Your task to perform on an android device: toggle airplane mode Image 0: 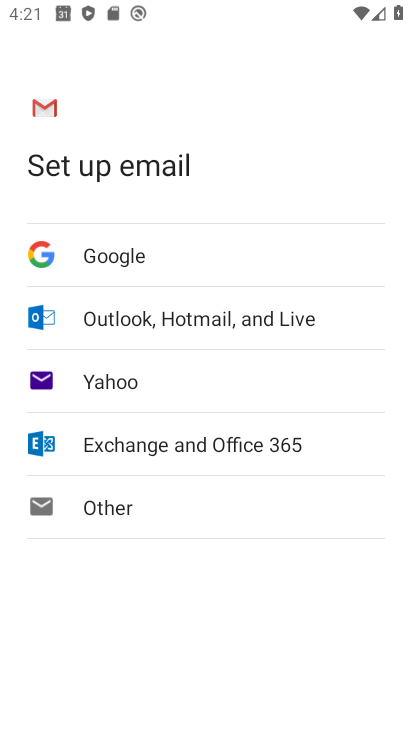
Step 0: press home button
Your task to perform on an android device: toggle airplane mode Image 1: 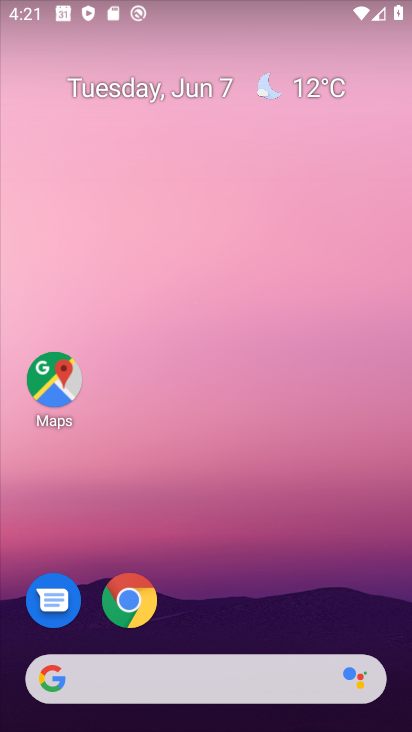
Step 1: drag from (195, 642) to (199, 307)
Your task to perform on an android device: toggle airplane mode Image 2: 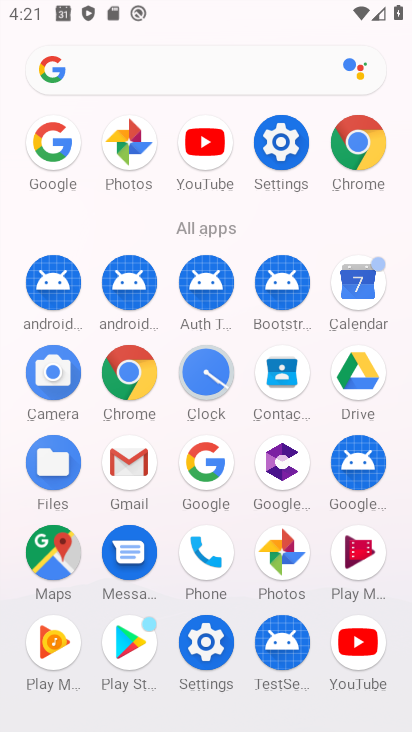
Step 2: click (287, 169)
Your task to perform on an android device: toggle airplane mode Image 3: 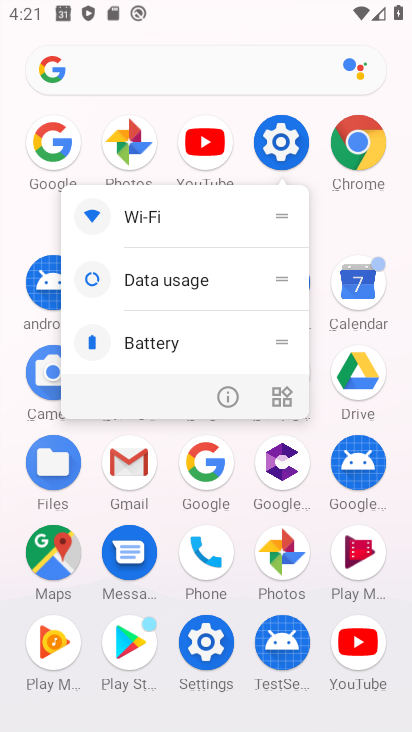
Step 3: click (272, 138)
Your task to perform on an android device: toggle airplane mode Image 4: 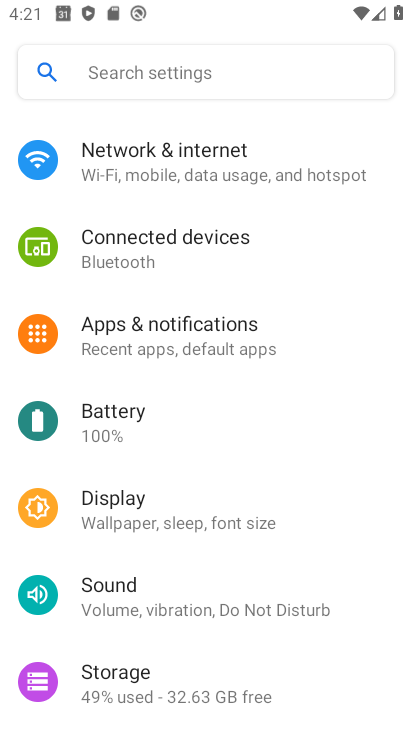
Step 4: click (276, 138)
Your task to perform on an android device: toggle airplane mode Image 5: 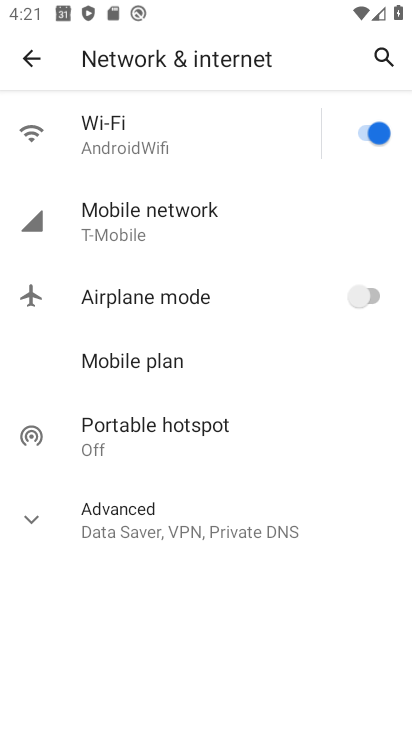
Step 5: click (375, 300)
Your task to perform on an android device: toggle airplane mode Image 6: 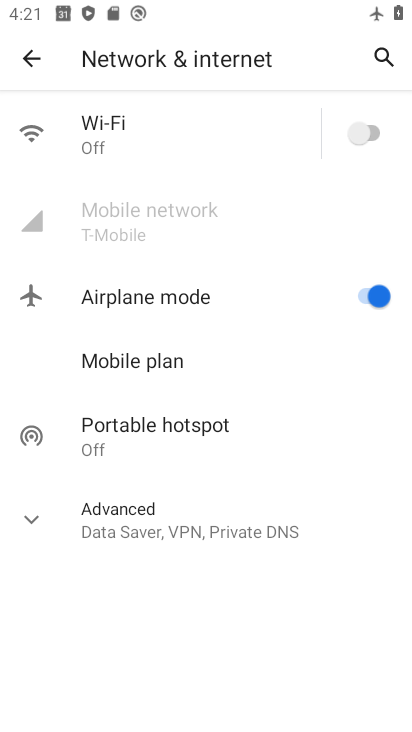
Step 6: task complete